Your task to perform on an android device: Go to Google Image 0: 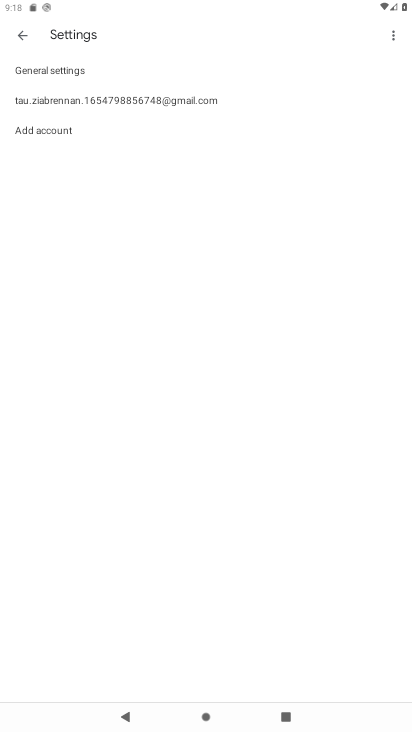
Step 0: press home button
Your task to perform on an android device: Go to Google Image 1: 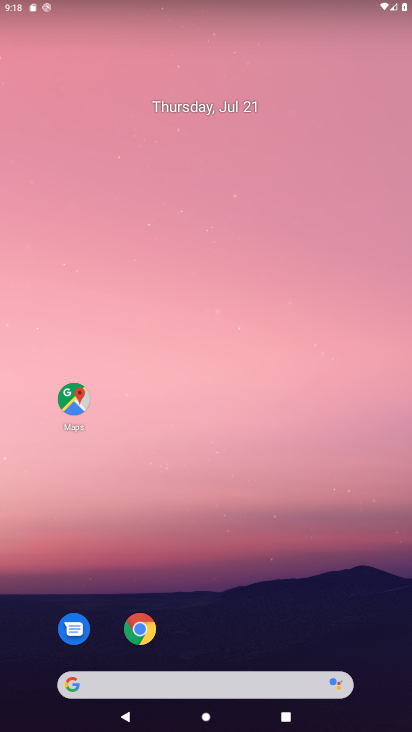
Step 1: drag from (208, 511) to (187, 23)
Your task to perform on an android device: Go to Google Image 2: 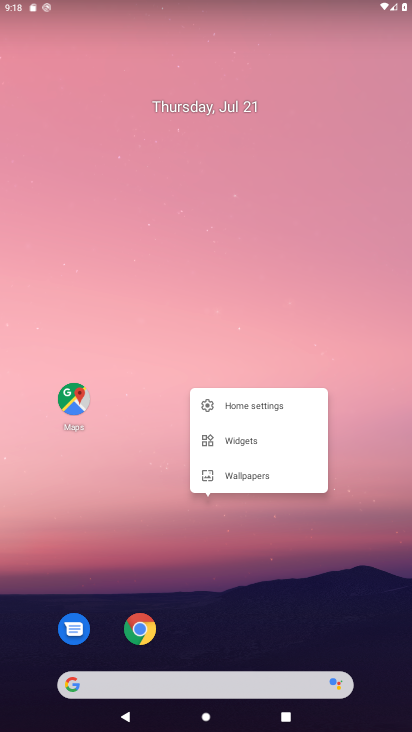
Step 2: click (233, 578)
Your task to perform on an android device: Go to Google Image 3: 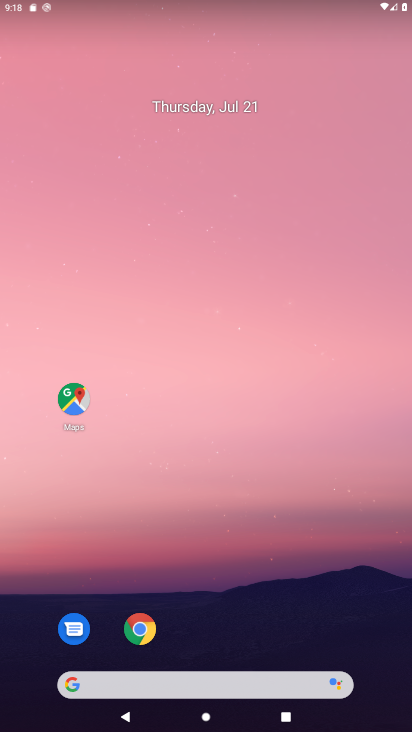
Step 3: drag from (209, 639) to (239, 143)
Your task to perform on an android device: Go to Google Image 4: 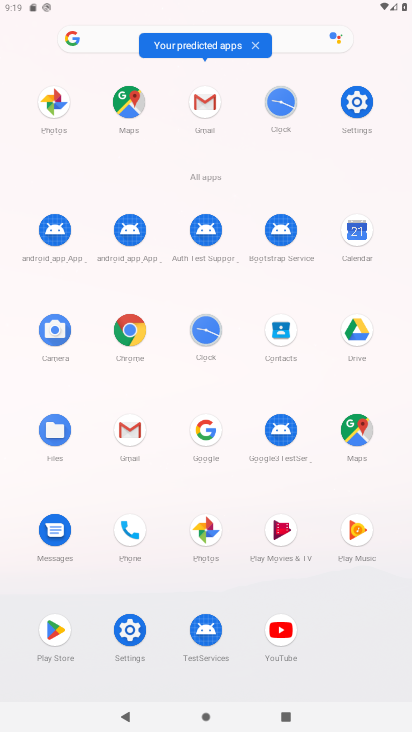
Step 4: click (197, 429)
Your task to perform on an android device: Go to Google Image 5: 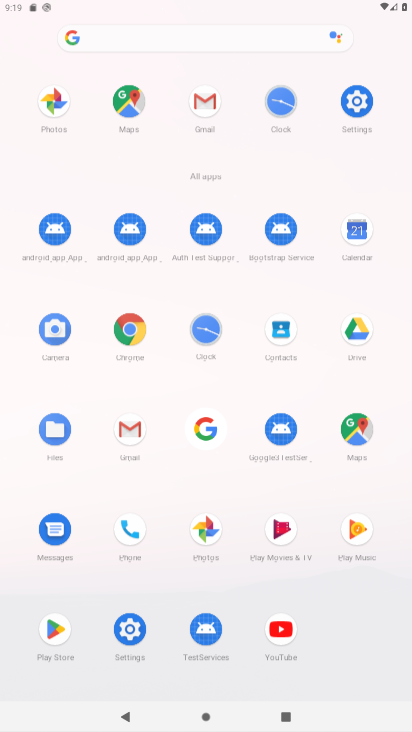
Step 5: click (197, 429)
Your task to perform on an android device: Go to Google Image 6: 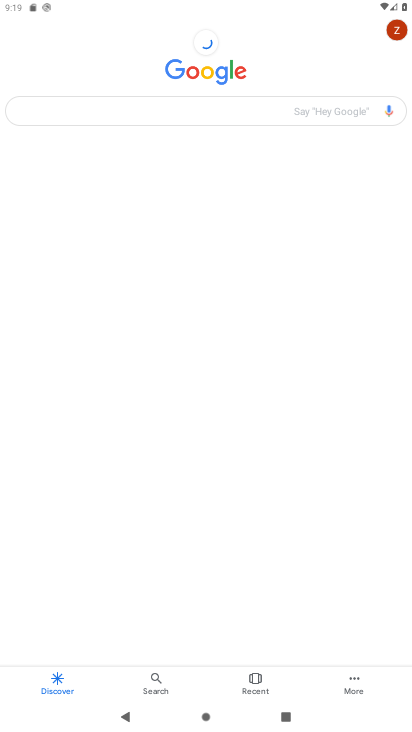
Step 6: task complete